Your task to perform on an android device: Go to Yahoo.com Image 0: 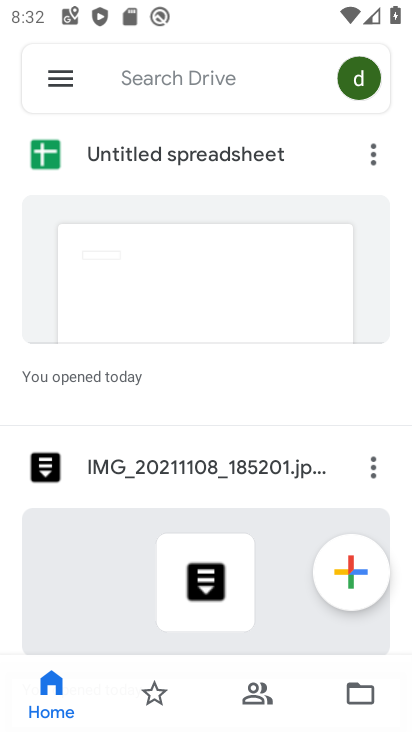
Step 0: press home button
Your task to perform on an android device: Go to Yahoo.com Image 1: 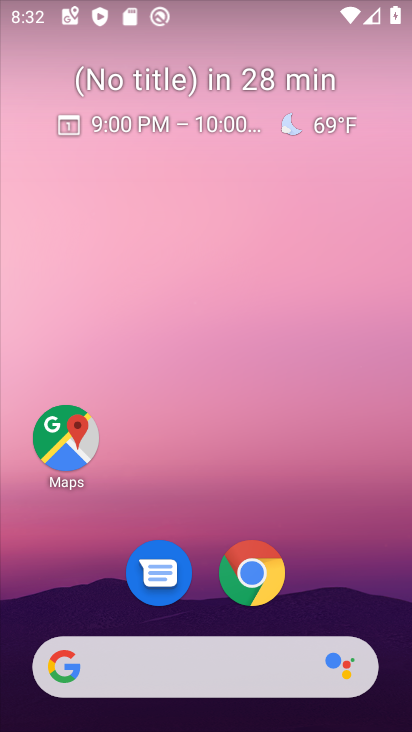
Step 1: click (248, 580)
Your task to perform on an android device: Go to Yahoo.com Image 2: 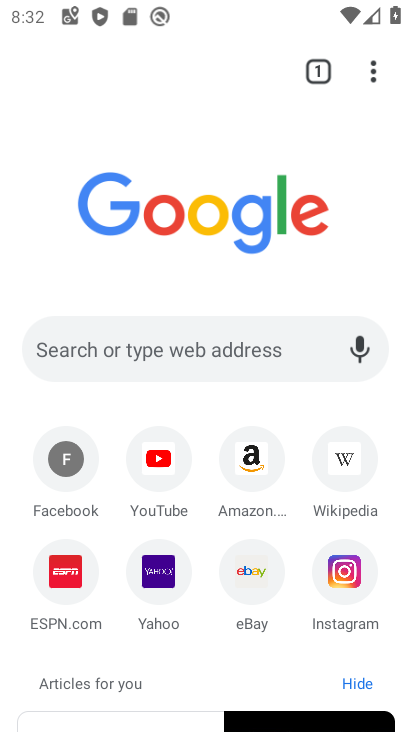
Step 2: click (152, 577)
Your task to perform on an android device: Go to Yahoo.com Image 3: 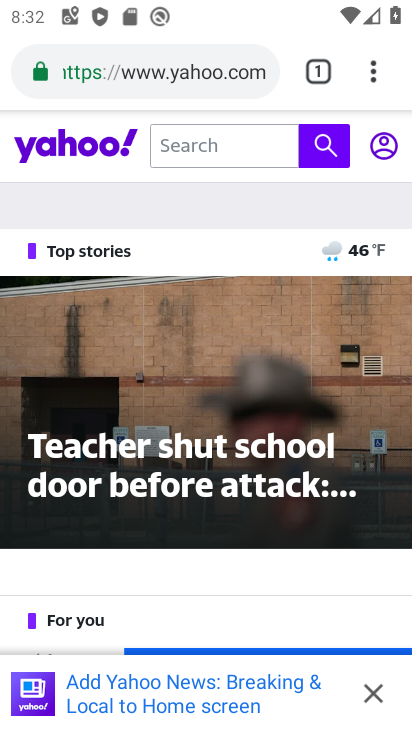
Step 3: task complete